Your task to perform on an android device: Open my contact list Image 0: 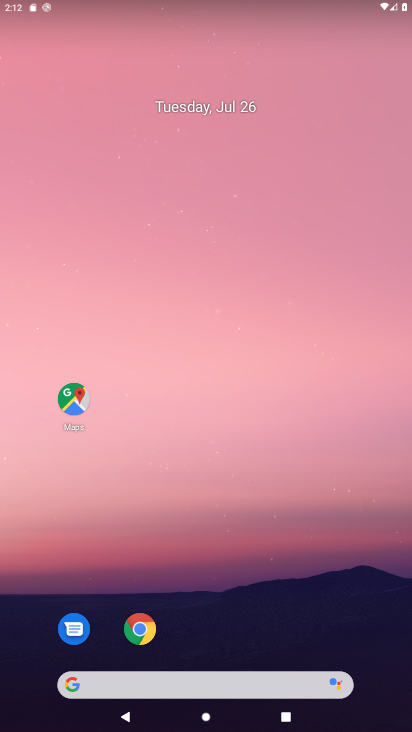
Step 0: drag from (191, 667) to (191, 141)
Your task to perform on an android device: Open my contact list Image 1: 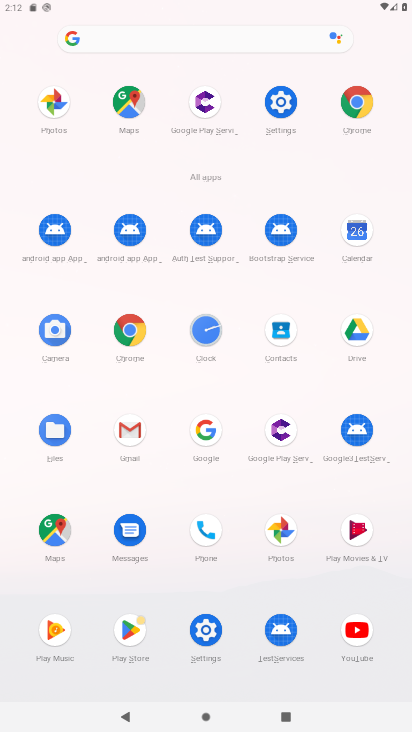
Step 1: click (199, 527)
Your task to perform on an android device: Open my contact list Image 2: 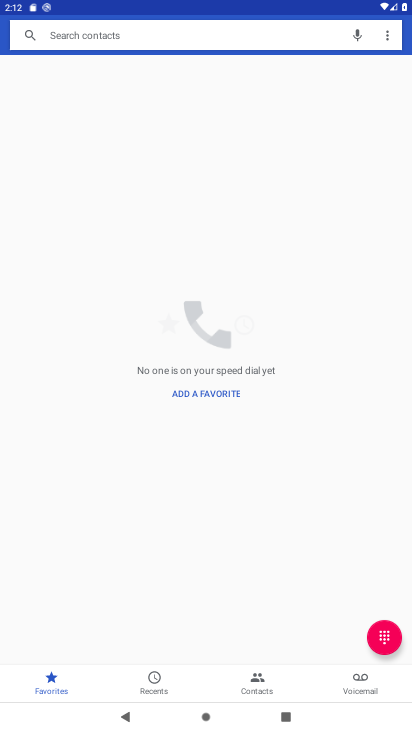
Step 2: click (257, 677)
Your task to perform on an android device: Open my contact list Image 3: 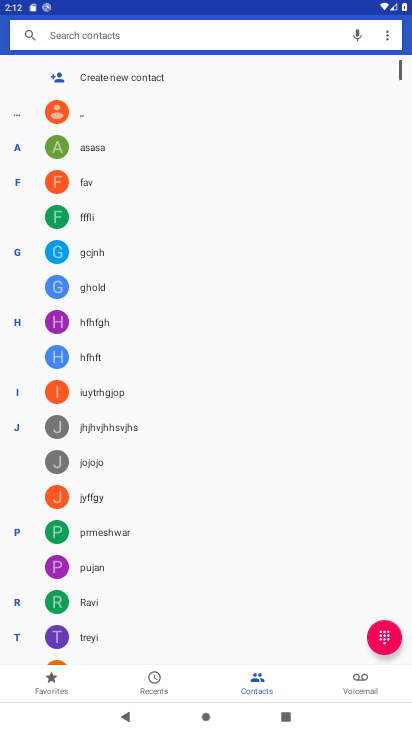
Step 3: click (90, 82)
Your task to perform on an android device: Open my contact list Image 4: 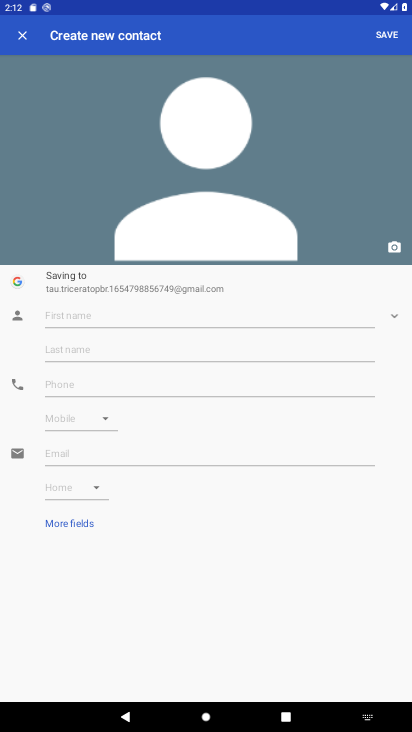
Step 4: click (145, 320)
Your task to perform on an android device: Open my contact list Image 5: 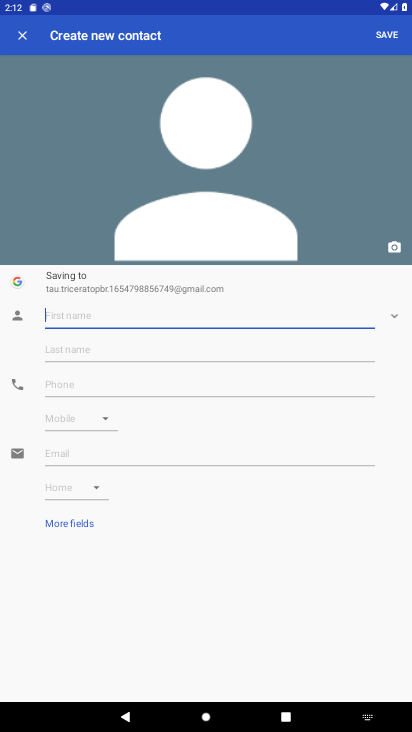
Step 5: type "hj"
Your task to perform on an android device: Open my contact list Image 6: 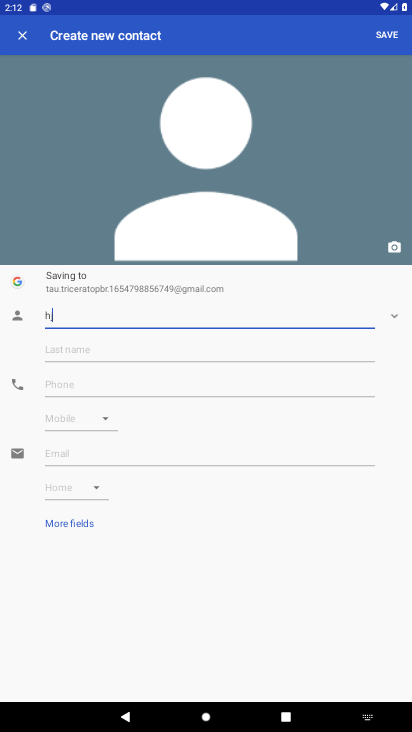
Step 6: click (71, 382)
Your task to perform on an android device: Open my contact list Image 7: 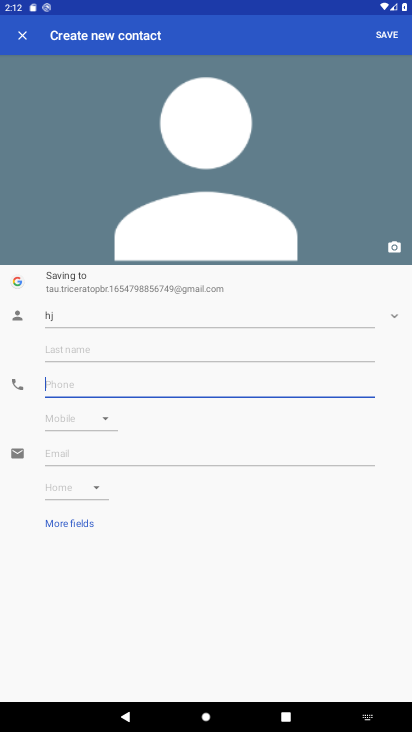
Step 7: type "7890987"
Your task to perform on an android device: Open my contact list Image 8: 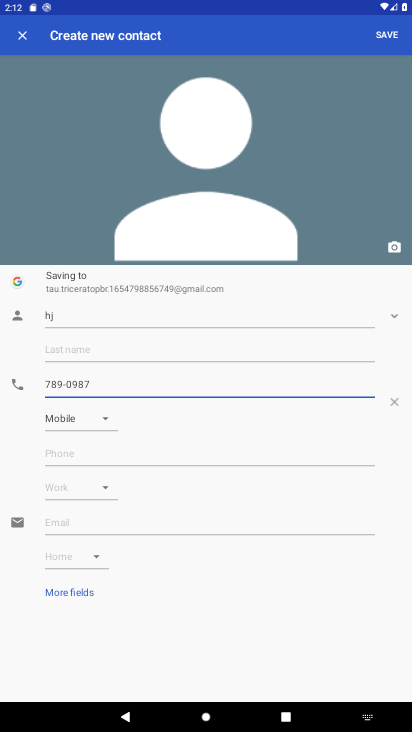
Step 8: click (388, 44)
Your task to perform on an android device: Open my contact list Image 9: 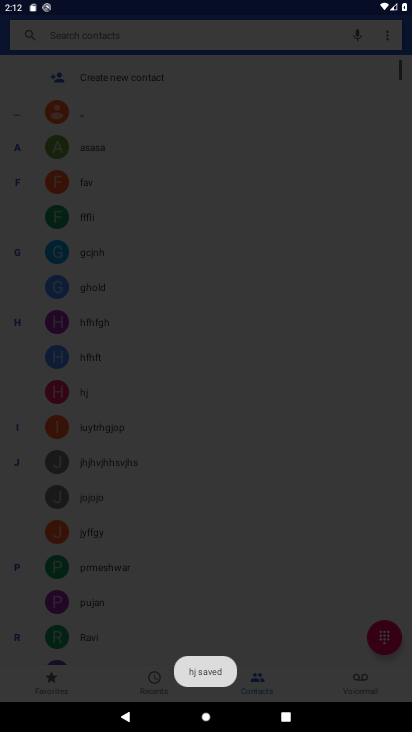
Step 9: task complete